Your task to perform on an android device: change text size in settings app Image 0: 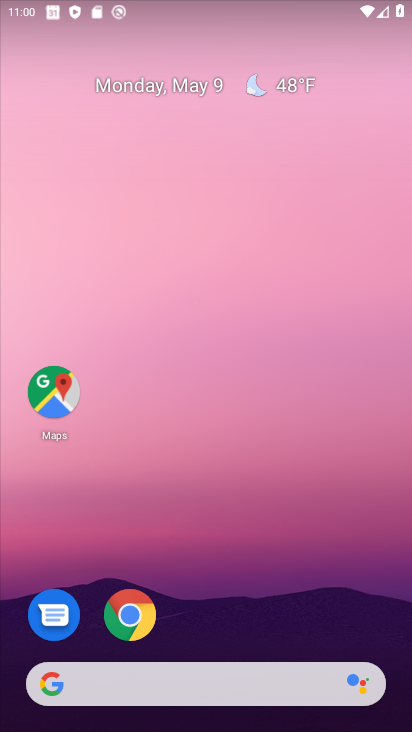
Step 0: drag from (248, 581) to (239, 77)
Your task to perform on an android device: change text size in settings app Image 1: 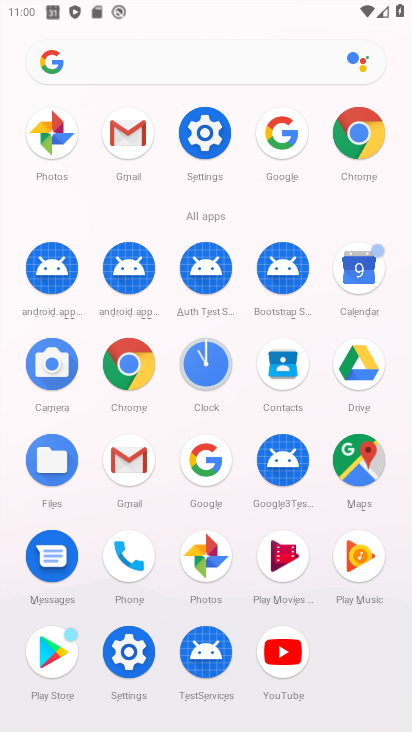
Step 1: click (205, 134)
Your task to perform on an android device: change text size in settings app Image 2: 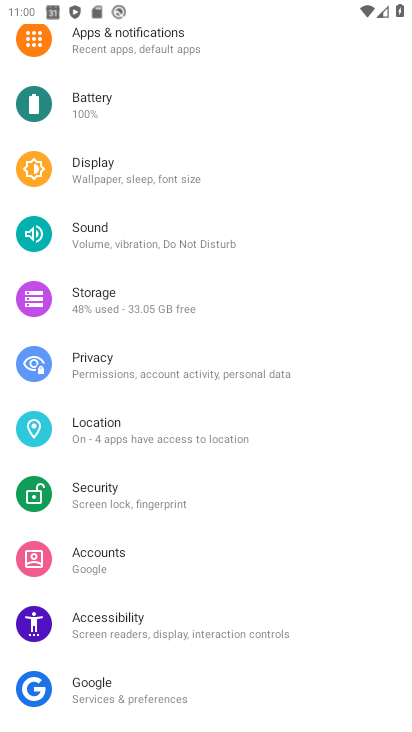
Step 2: click (136, 185)
Your task to perform on an android device: change text size in settings app Image 3: 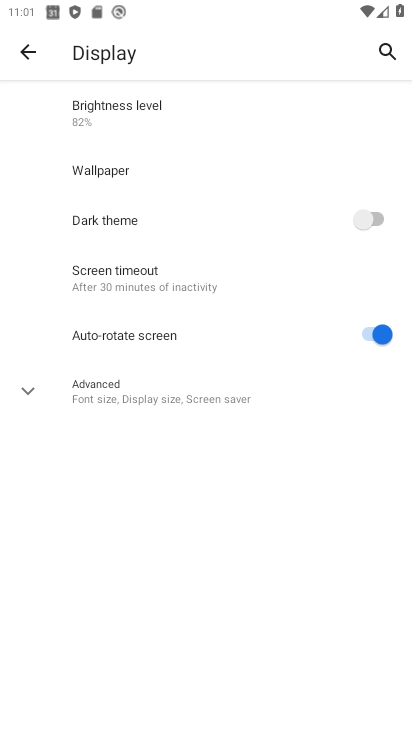
Step 3: click (120, 386)
Your task to perform on an android device: change text size in settings app Image 4: 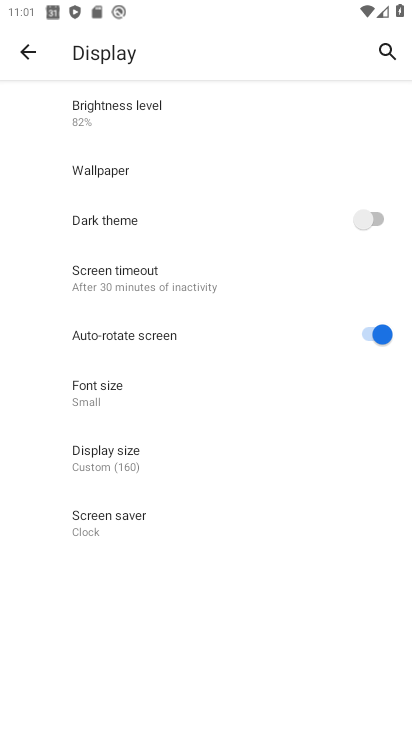
Step 4: click (126, 406)
Your task to perform on an android device: change text size in settings app Image 5: 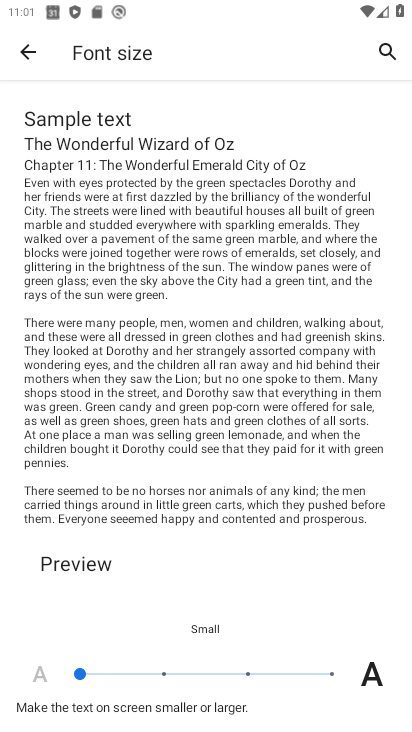
Step 5: click (164, 672)
Your task to perform on an android device: change text size in settings app Image 6: 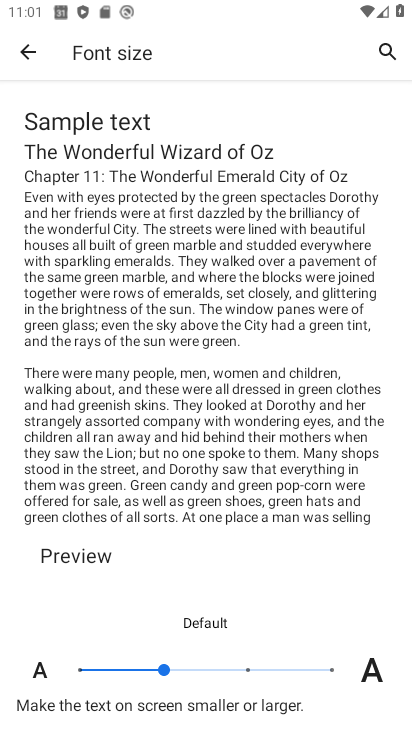
Step 6: task complete